Your task to perform on an android device: delete a single message in the gmail app Image 0: 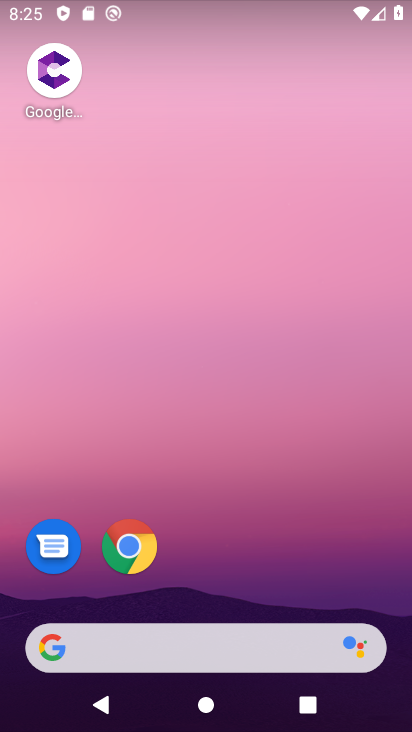
Step 0: drag from (396, 709) to (346, 88)
Your task to perform on an android device: delete a single message in the gmail app Image 1: 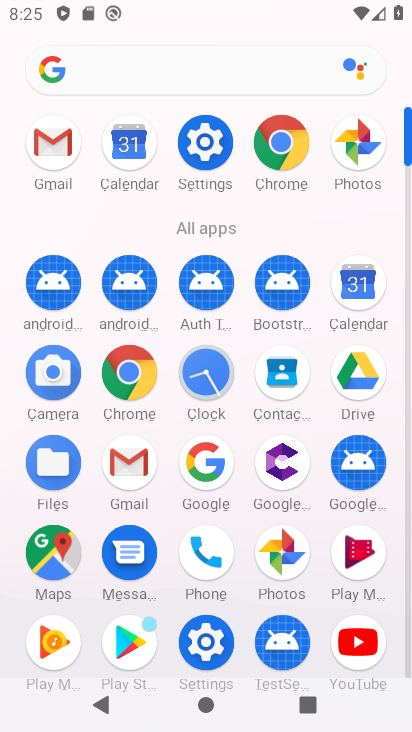
Step 1: click (55, 157)
Your task to perform on an android device: delete a single message in the gmail app Image 2: 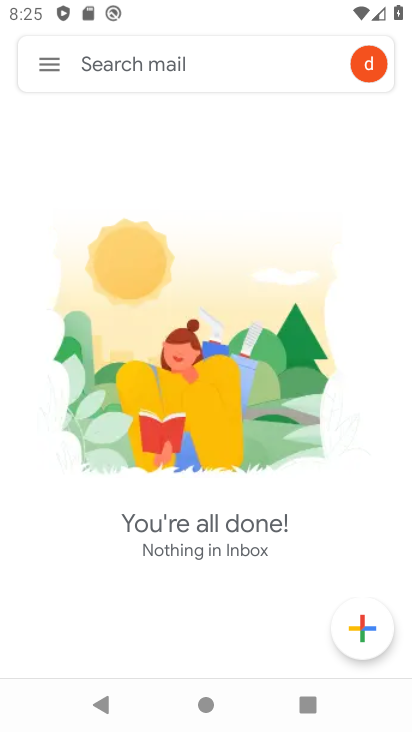
Step 2: click (55, 67)
Your task to perform on an android device: delete a single message in the gmail app Image 3: 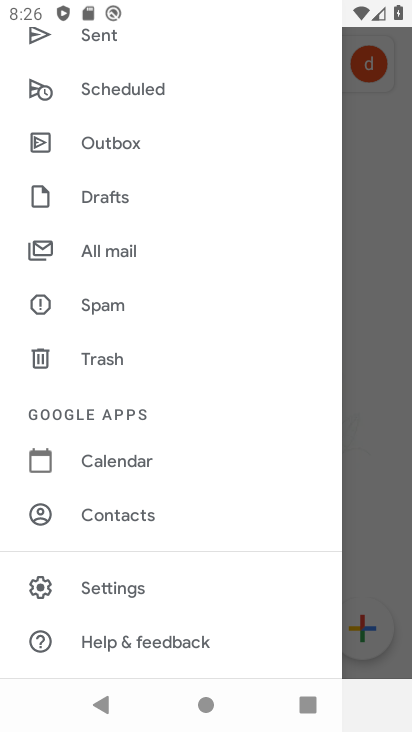
Step 3: drag from (205, 171) to (231, 566)
Your task to perform on an android device: delete a single message in the gmail app Image 4: 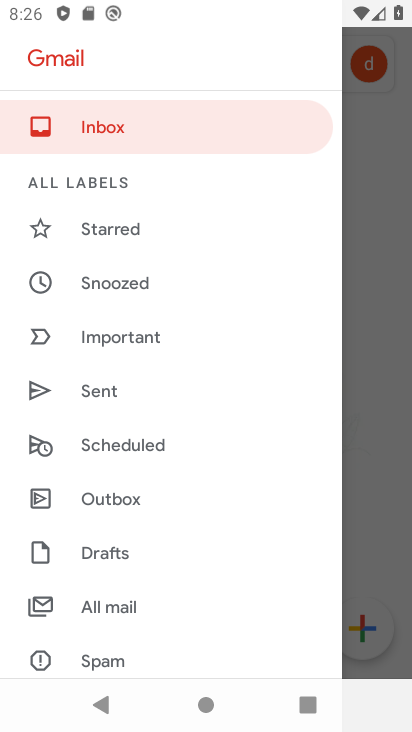
Step 4: click (124, 136)
Your task to perform on an android device: delete a single message in the gmail app Image 5: 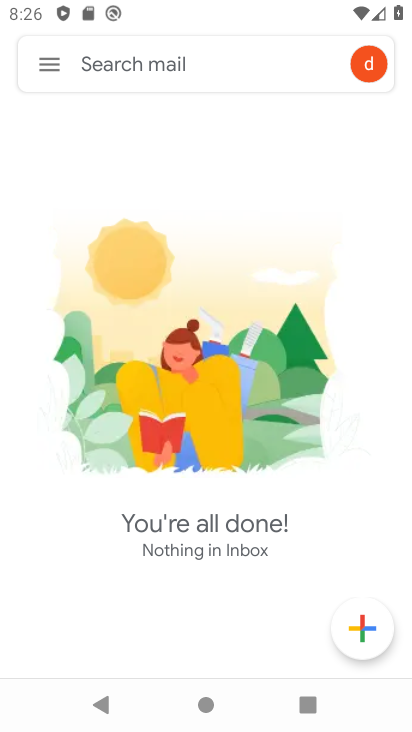
Step 5: click (47, 67)
Your task to perform on an android device: delete a single message in the gmail app Image 6: 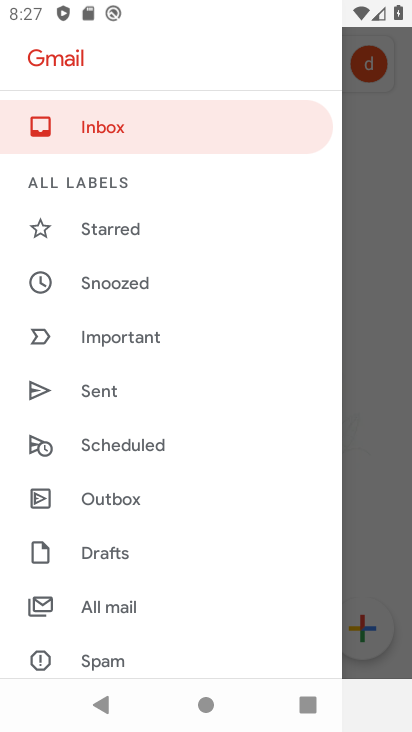
Step 6: drag from (222, 629) to (236, 233)
Your task to perform on an android device: delete a single message in the gmail app Image 7: 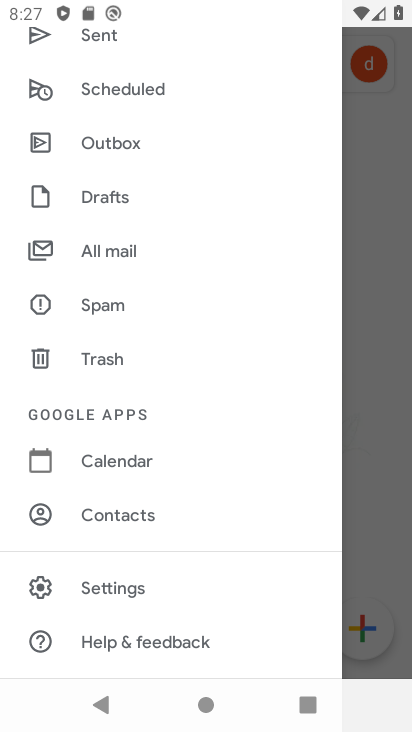
Step 7: drag from (226, 216) to (271, 522)
Your task to perform on an android device: delete a single message in the gmail app Image 8: 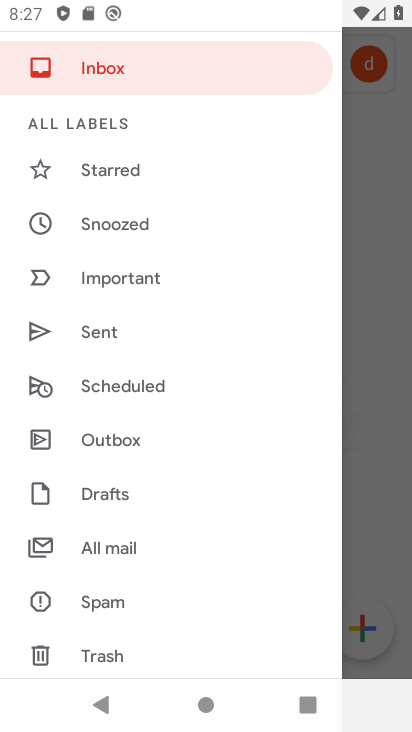
Step 8: drag from (242, 100) to (269, 502)
Your task to perform on an android device: delete a single message in the gmail app Image 9: 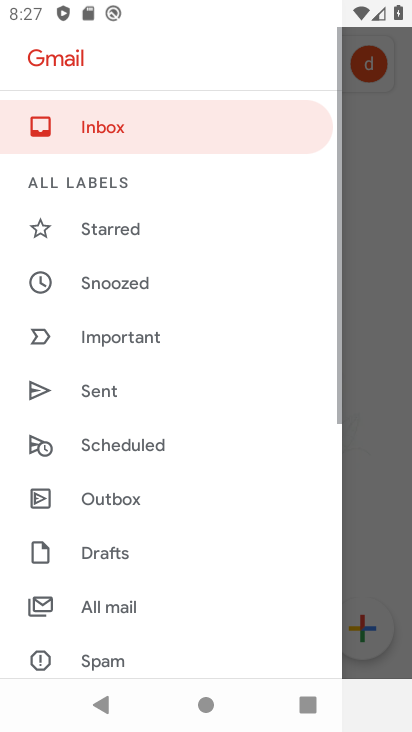
Step 9: click (140, 73)
Your task to perform on an android device: delete a single message in the gmail app Image 10: 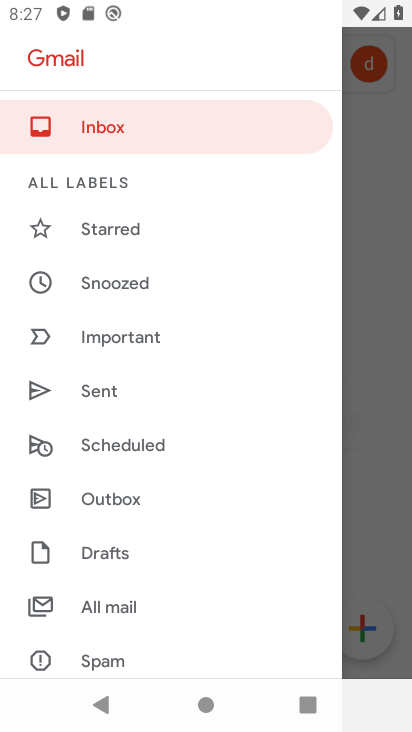
Step 10: click (239, 120)
Your task to perform on an android device: delete a single message in the gmail app Image 11: 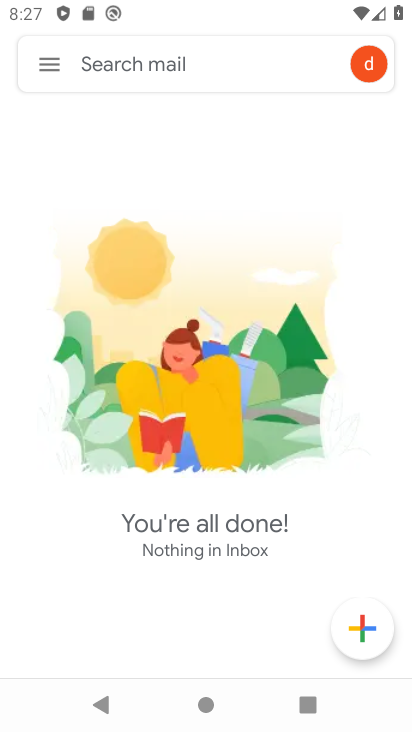
Step 11: task complete